Your task to perform on an android device: turn on priority inbox in the gmail app Image 0: 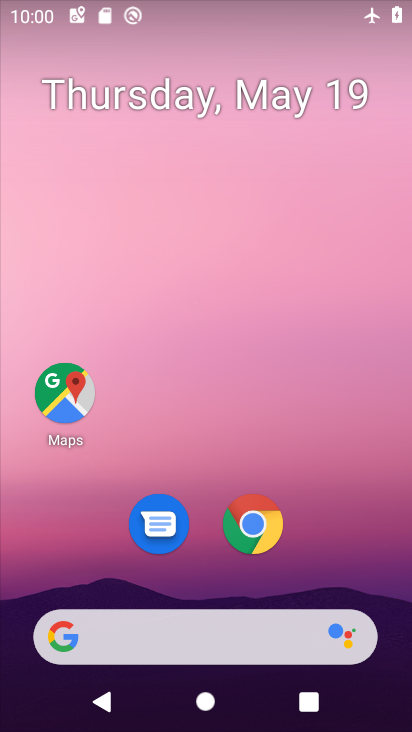
Step 0: drag from (316, 523) to (304, 50)
Your task to perform on an android device: turn on priority inbox in the gmail app Image 1: 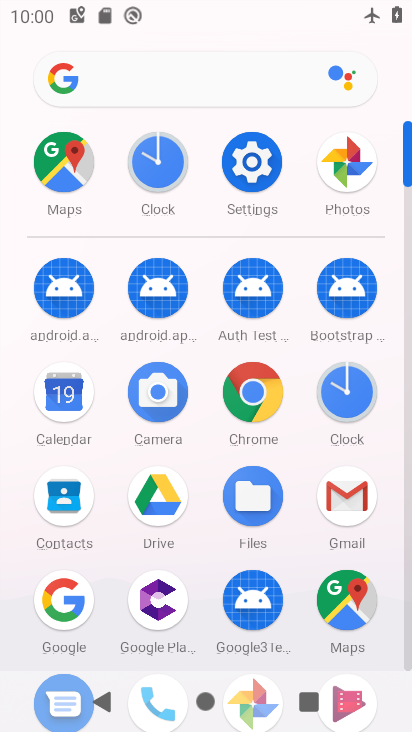
Step 1: click (348, 501)
Your task to perform on an android device: turn on priority inbox in the gmail app Image 2: 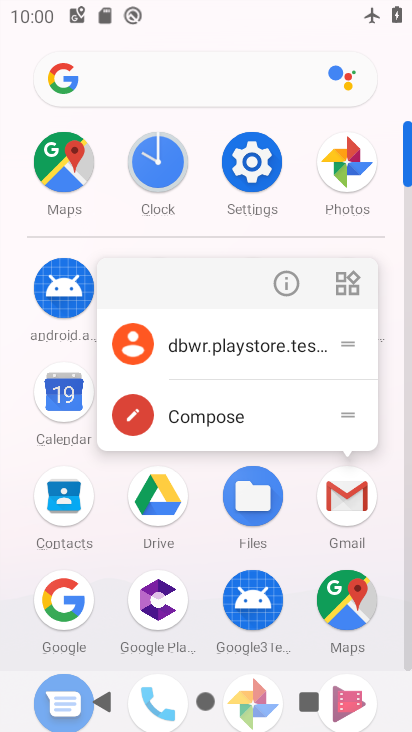
Step 2: click (348, 498)
Your task to perform on an android device: turn on priority inbox in the gmail app Image 3: 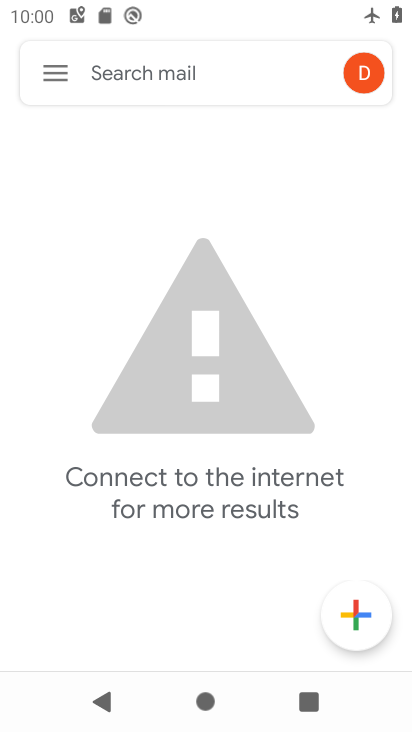
Step 3: click (53, 65)
Your task to perform on an android device: turn on priority inbox in the gmail app Image 4: 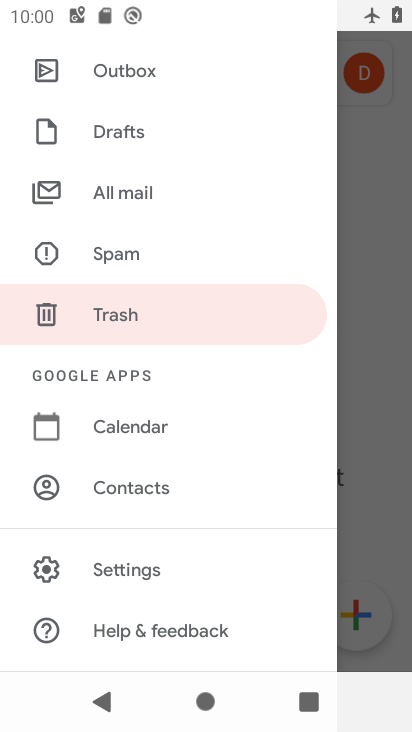
Step 4: click (152, 572)
Your task to perform on an android device: turn on priority inbox in the gmail app Image 5: 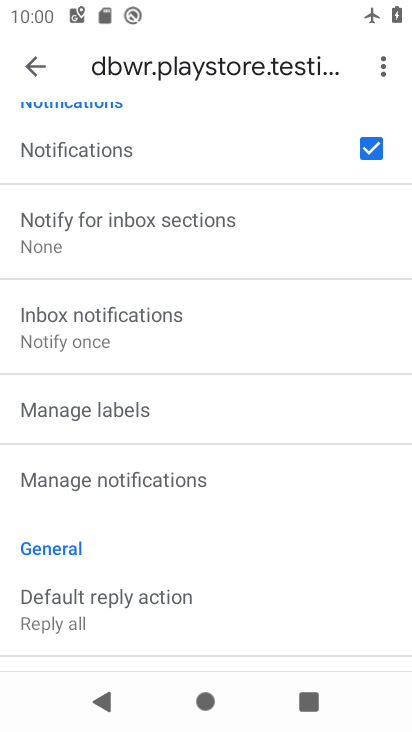
Step 5: task complete